Your task to perform on an android device: see creations saved in the google photos Image 0: 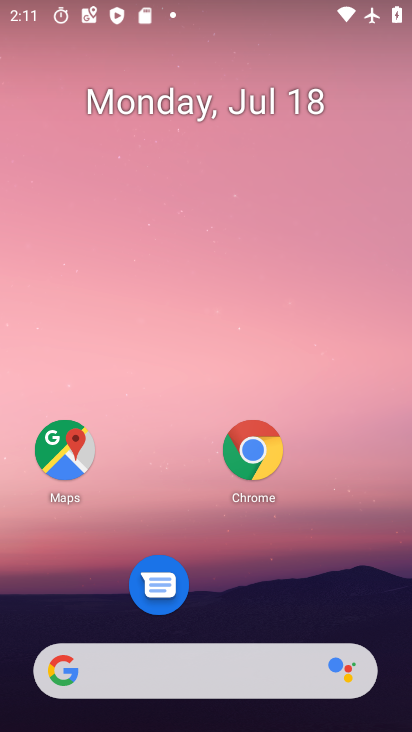
Step 0: drag from (199, 511) to (271, 101)
Your task to perform on an android device: see creations saved in the google photos Image 1: 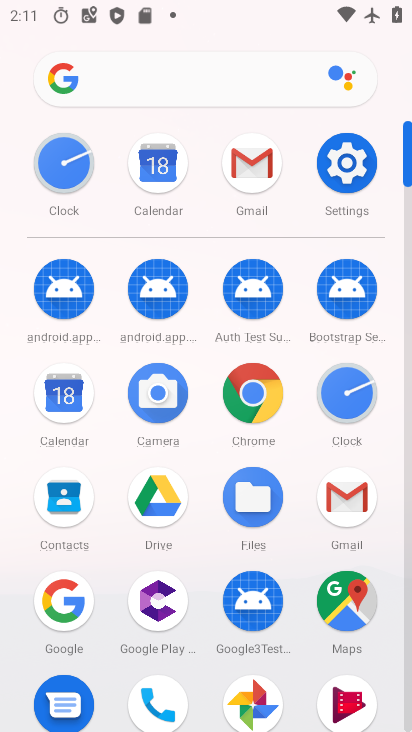
Step 1: click (259, 693)
Your task to perform on an android device: see creations saved in the google photos Image 2: 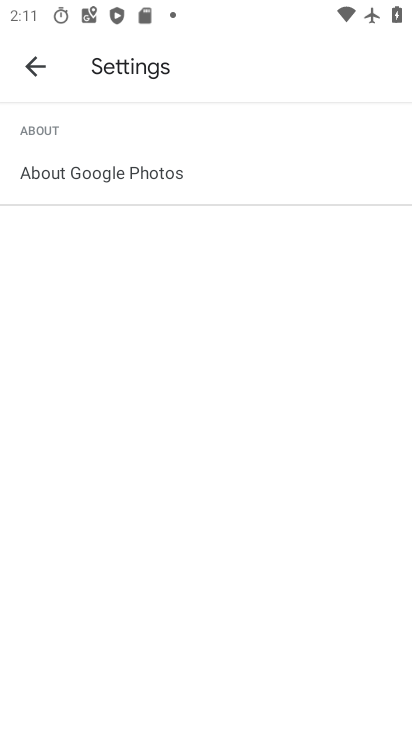
Step 2: click (39, 61)
Your task to perform on an android device: see creations saved in the google photos Image 3: 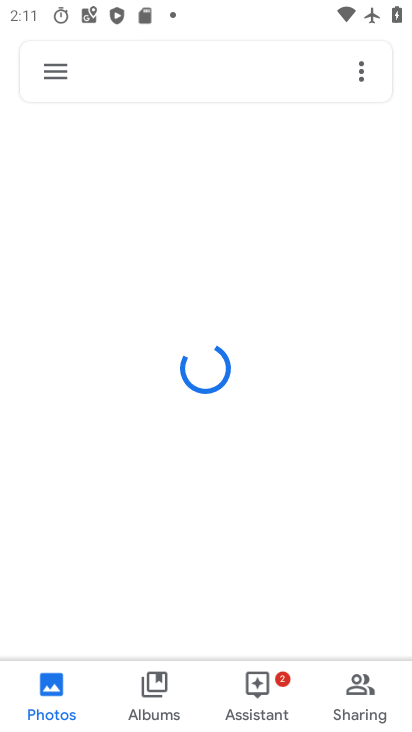
Step 3: click (156, 668)
Your task to perform on an android device: see creations saved in the google photos Image 4: 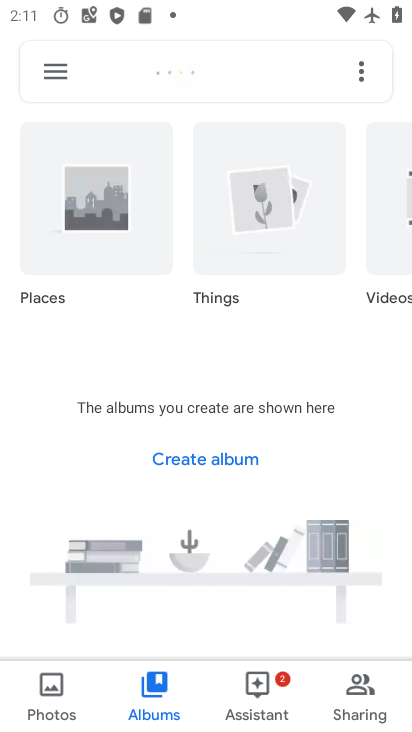
Step 4: click (203, 69)
Your task to perform on an android device: see creations saved in the google photos Image 5: 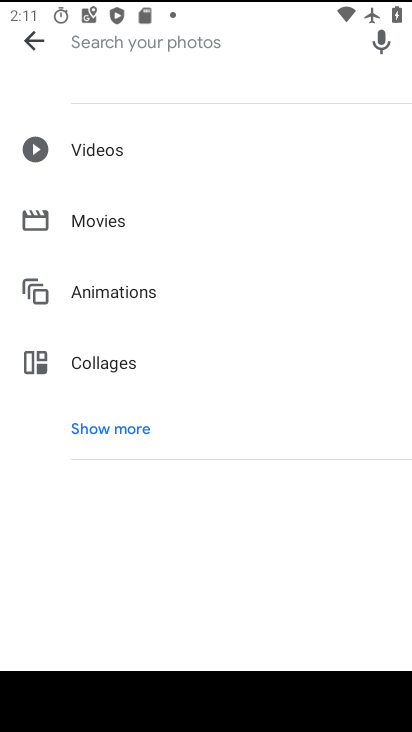
Step 5: click (104, 429)
Your task to perform on an android device: see creations saved in the google photos Image 6: 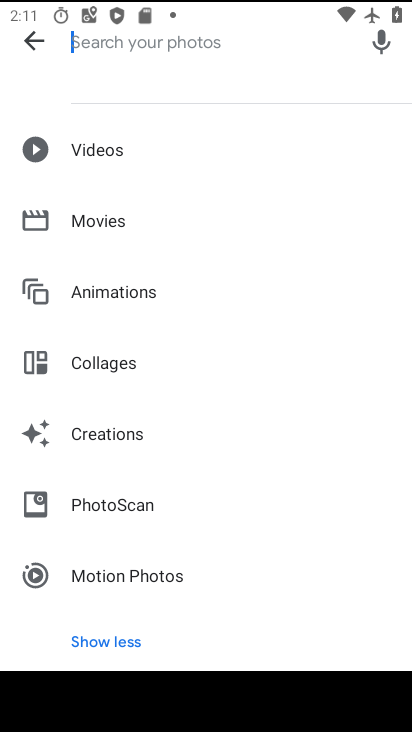
Step 6: click (90, 431)
Your task to perform on an android device: see creations saved in the google photos Image 7: 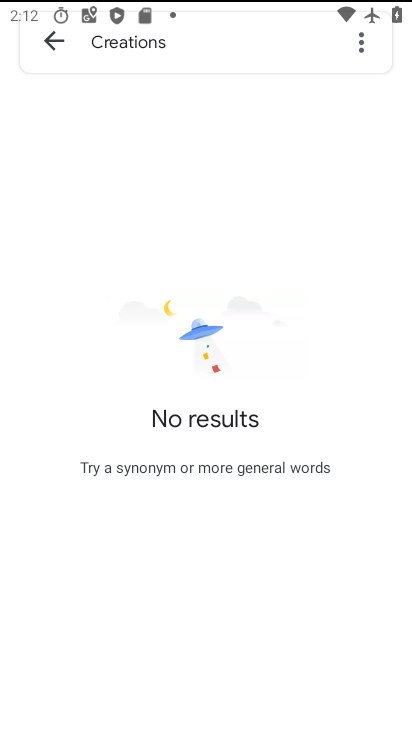
Step 7: task complete